Your task to perform on an android device: empty trash in google photos Image 0: 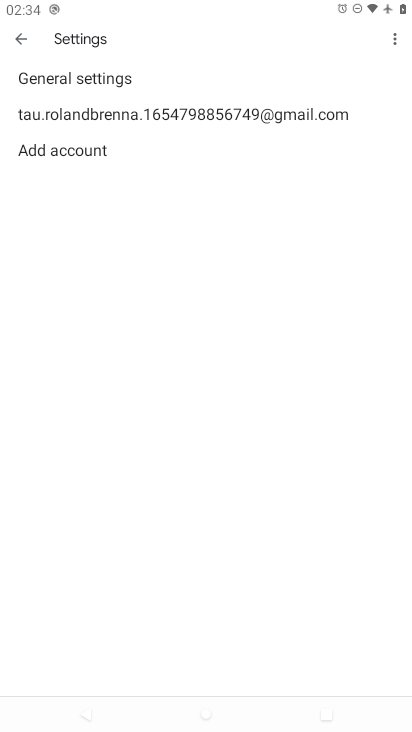
Step 0: press home button
Your task to perform on an android device: empty trash in google photos Image 1: 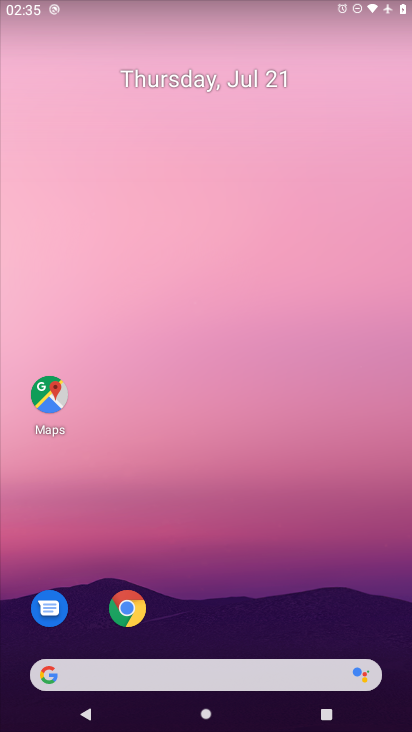
Step 1: drag from (235, 539) to (291, 4)
Your task to perform on an android device: empty trash in google photos Image 2: 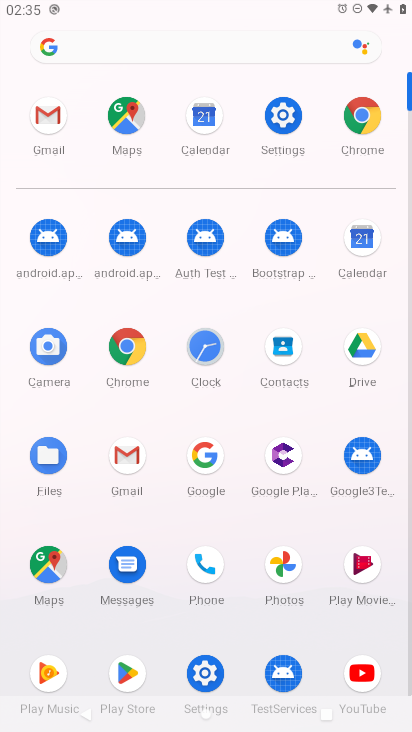
Step 2: click (288, 562)
Your task to perform on an android device: empty trash in google photos Image 3: 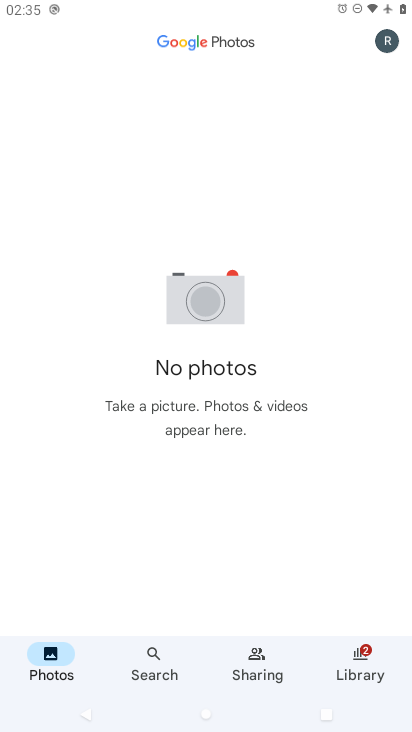
Step 3: click (360, 671)
Your task to perform on an android device: empty trash in google photos Image 4: 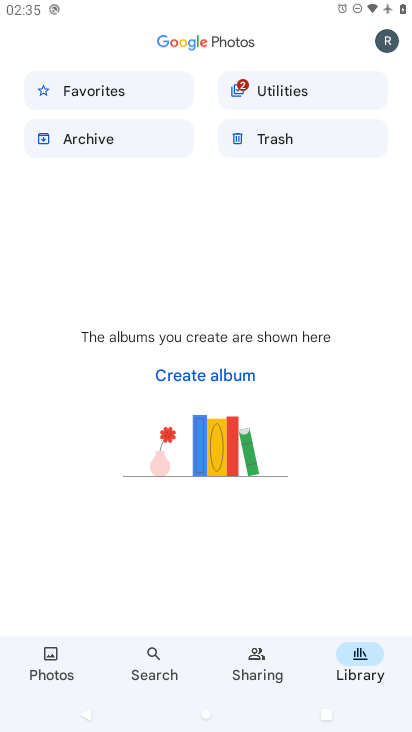
Step 4: click (280, 126)
Your task to perform on an android device: empty trash in google photos Image 5: 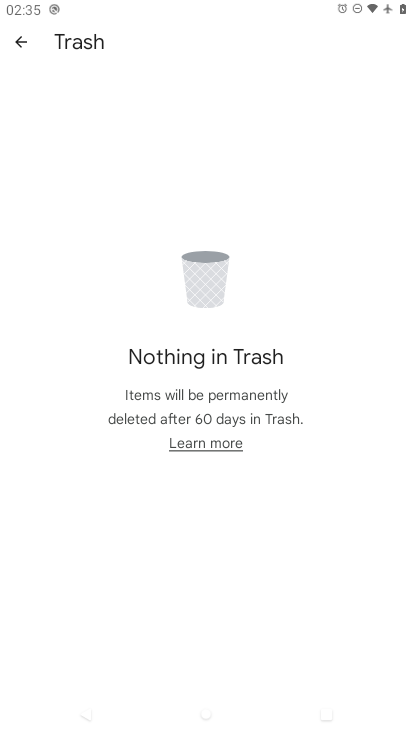
Step 5: task complete